Your task to perform on an android device: Open calendar and show me the third week of next month Image 0: 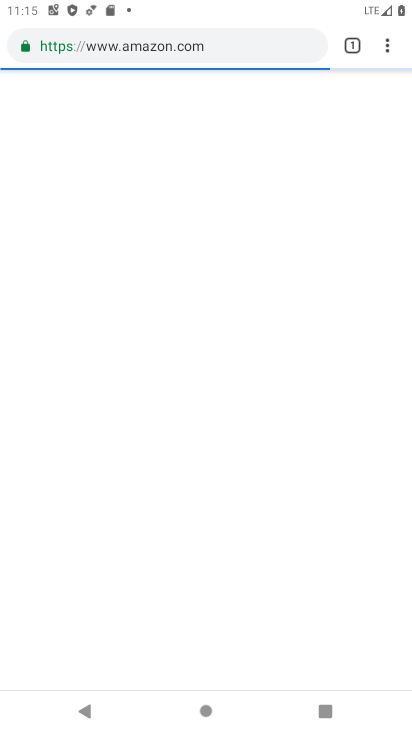
Step 0: press home button
Your task to perform on an android device: Open calendar and show me the third week of next month Image 1: 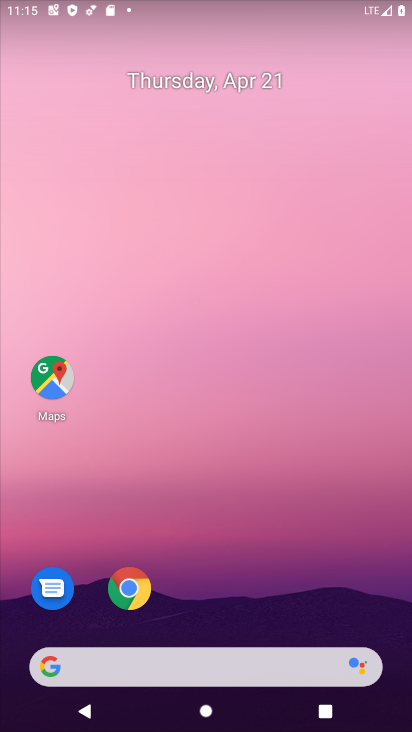
Step 1: drag from (232, 683) to (294, 140)
Your task to perform on an android device: Open calendar and show me the third week of next month Image 2: 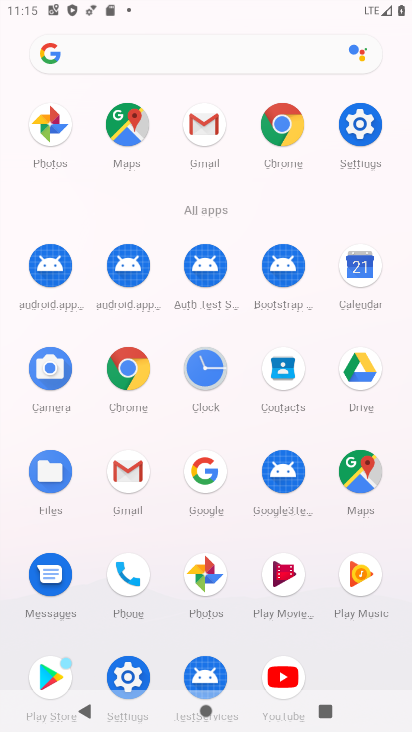
Step 2: click (349, 269)
Your task to perform on an android device: Open calendar and show me the third week of next month Image 3: 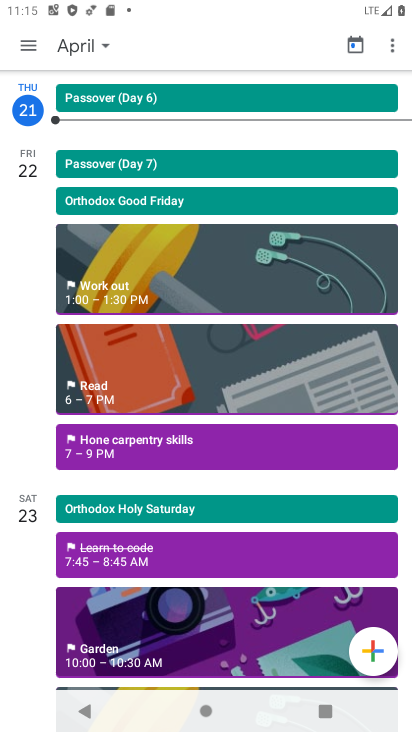
Step 3: click (36, 55)
Your task to perform on an android device: Open calendar and show me the third week of next month Image 4: 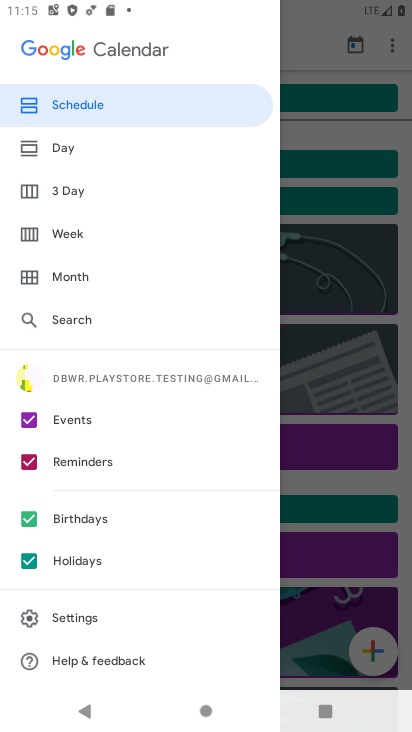
Step 4: click (55, 275)
Your task to perform on an android device: Open calendar and show me the third week of next month Image 5: 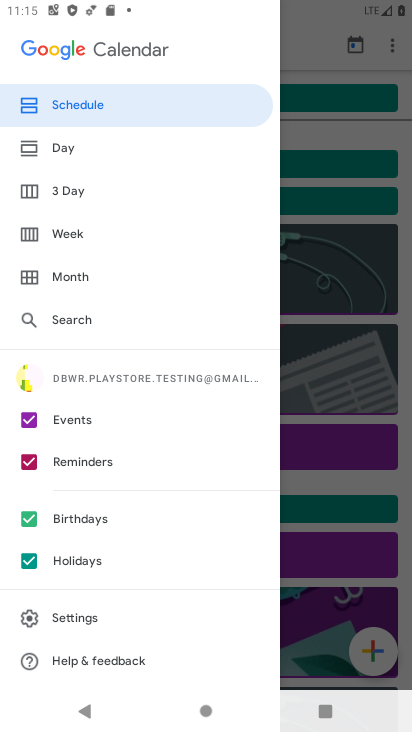
Step 5: click (73, 274)
Your task to perform on an android device: Open calendar and show me the third week of next month Image 6: 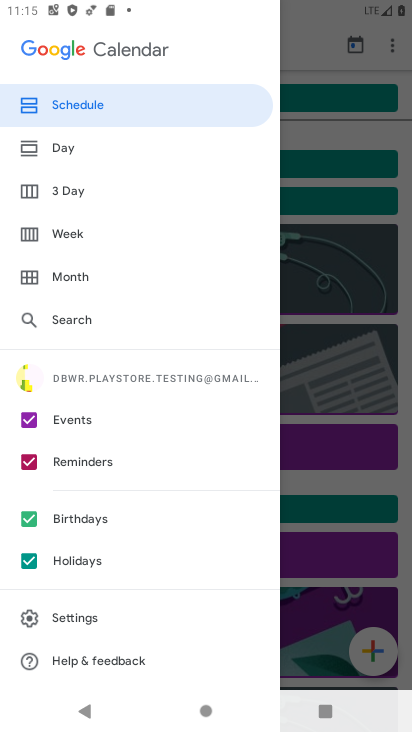
Step 6: click (84, 276)
Your task to perform on an android device: Open calendar and show me the third week of next month Image 7: 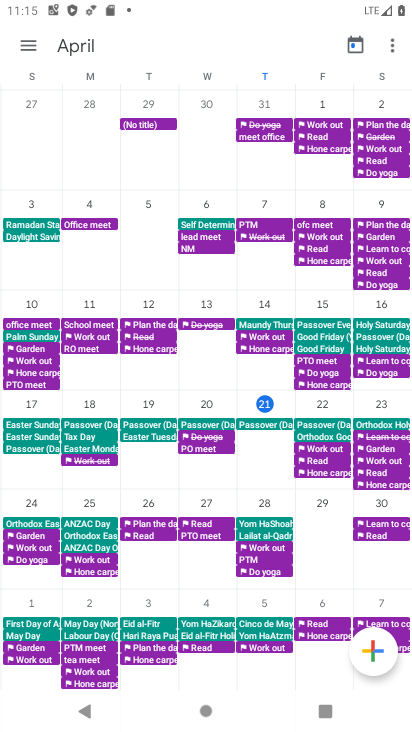
Step 7: drag from (401, 396) to (77, 433)
Your task to perform on an android device: Open calendar and show me the third week of next month Image 8: 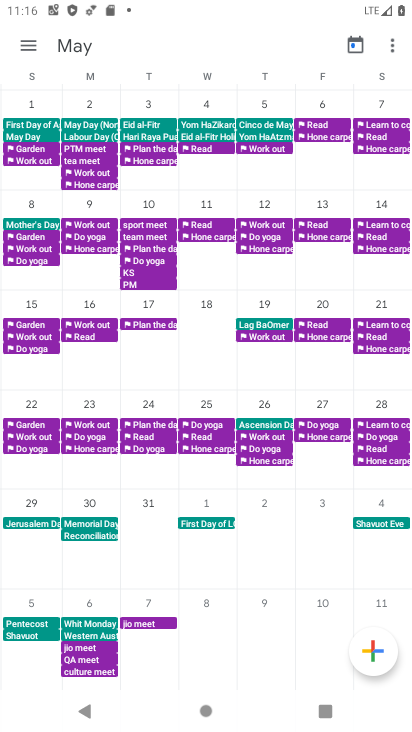
Step 8: click (79, 300)
Your task to perform on an android device: Open calendar and show me the third week of next month Image 9: 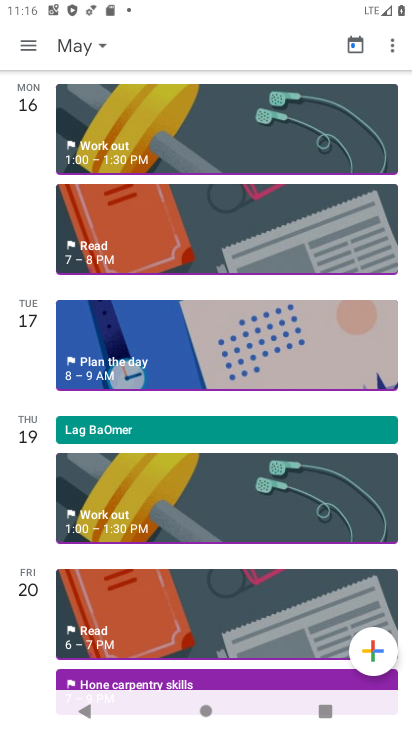
Step 9: task complete